Your task to perform on an android device: check data usage Image 0: 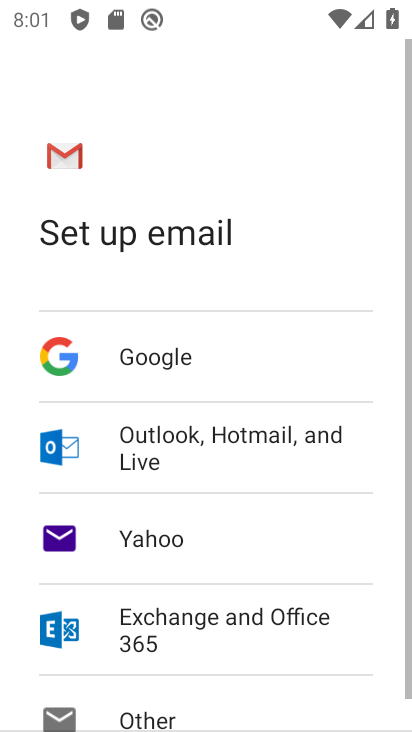
Step 0: press back button
Your task to perform on an android device: check data usage Image 1: 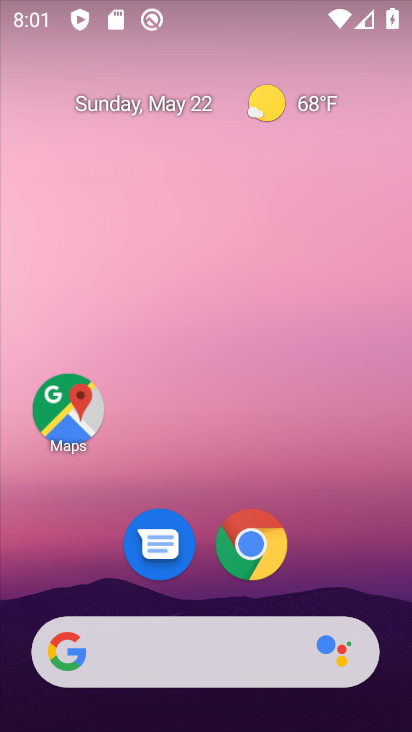
Step 1: drag from (395, 617) to (348, 27)
Your task to perform on an android device: check data usage Image 2: 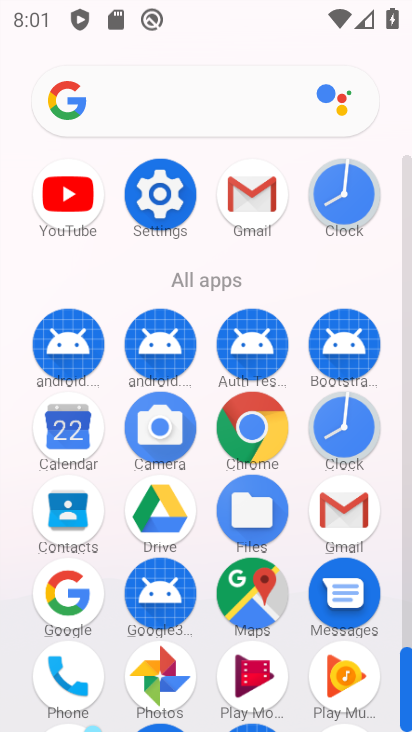
Step 2: click (168, 212)
Your task to perform on an android device: check data usage Image 3: 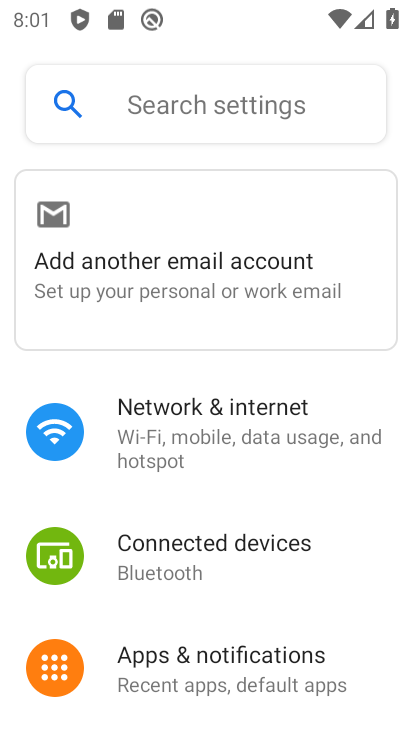
Step 3: click (176, 415)
Your task to perform on an android device: check data usage Image 4: 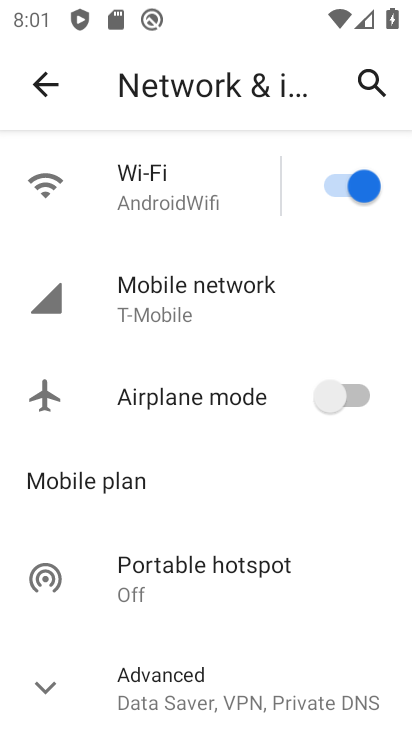
Step 4: click (176, 299)
Your task to perform on an android device: check data usage Image 5: 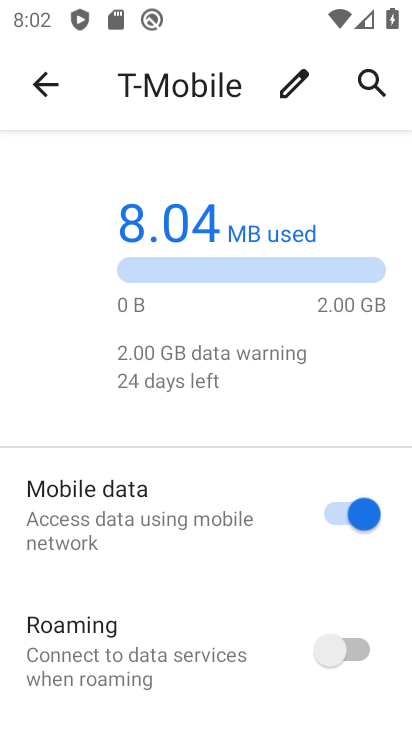
Step 5: task complete